Your task to perform on an android device: Go to Android settings Image 0: 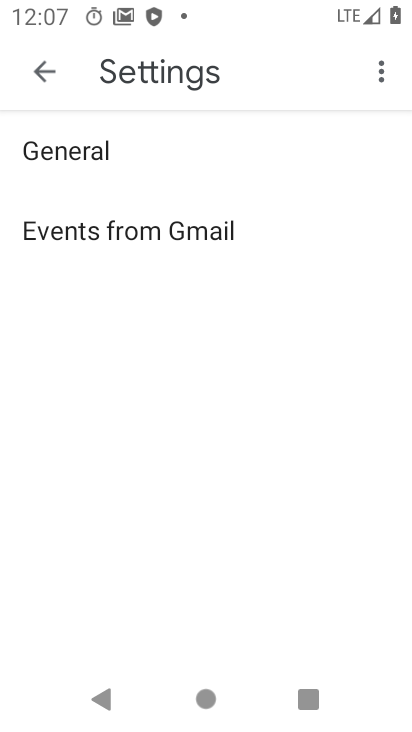
Step 0: press home button
Your task to perform on an android device: Go to Android settings Image 1: 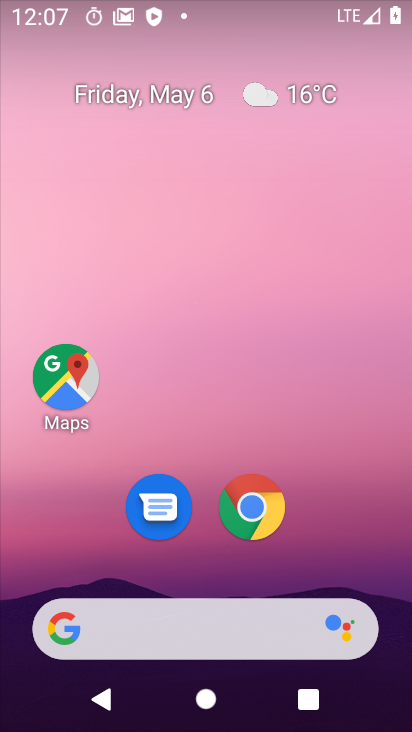
Step 1: drag from (224, 717) to (230, 198)
Your task to perform on an android device: Go to Android settings Image 2: 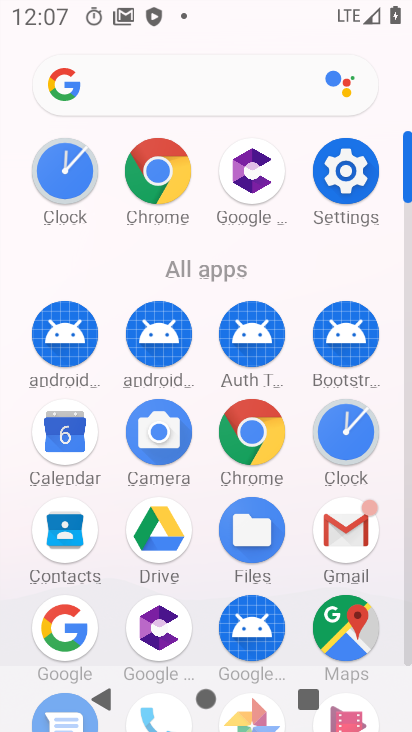
Step 2: click (336, 179)
Your task to perform on an android device: Go to Android settings Image 3: 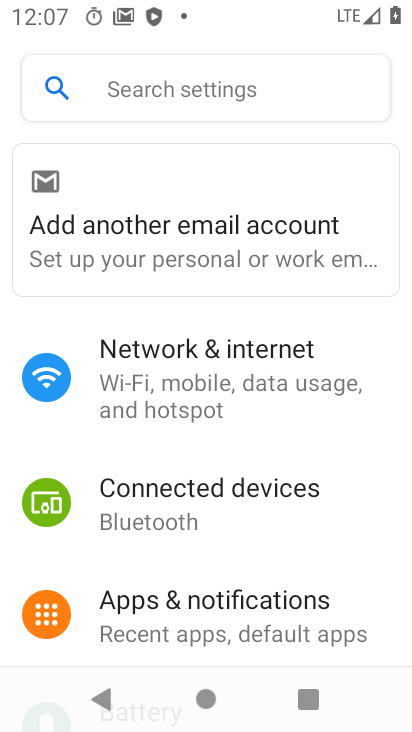
Step 3: task complete